Your task to perform on an android device: check out phone information Image 0: 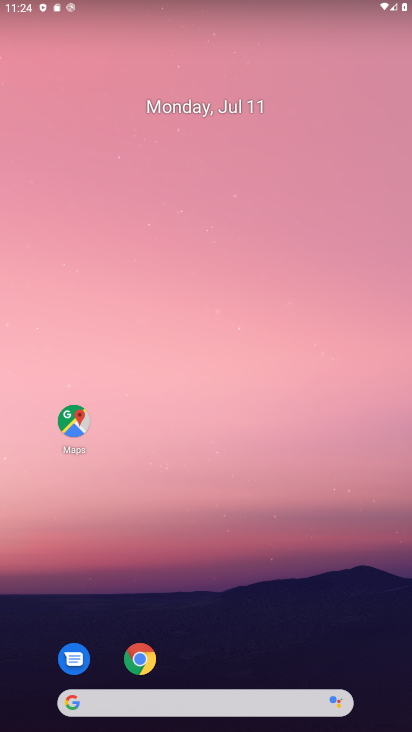
Step 0: drag from (205, 548) to (281, 190)
Your task to perform on an android device: check out phone information Image 1: 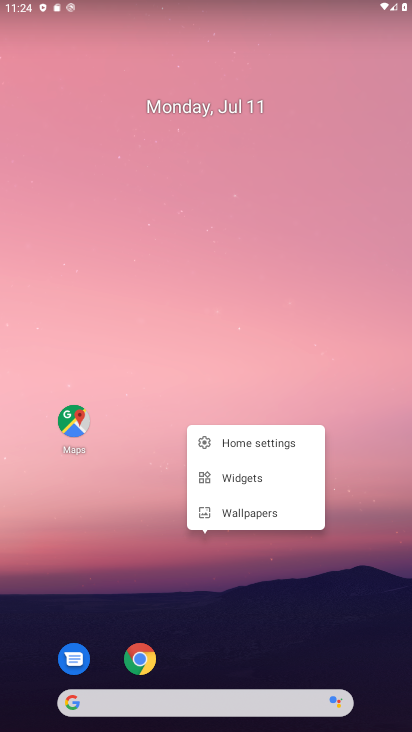
Step 1: drag from (195, 637) to (246, 85)
Your task to perform on an android device: check out phone information Image 2: 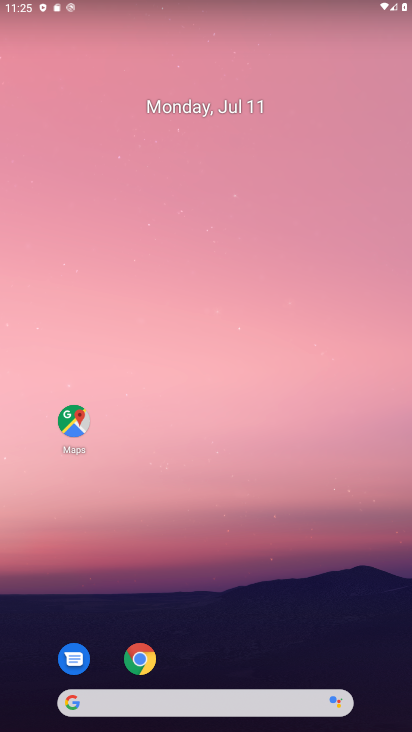
Step 2: drag from (194, 658) to (210, 33)
Your task to perform on an android device: check out phone information Image 3: 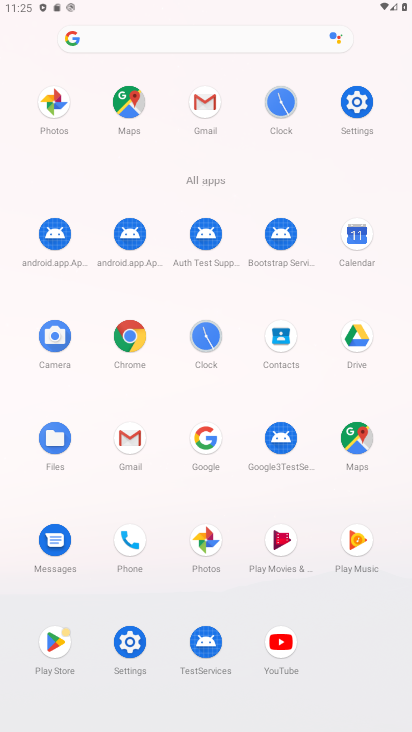
Step 3: click (128, 651)
Your task to perform on an android device: check out phone information Image 4: 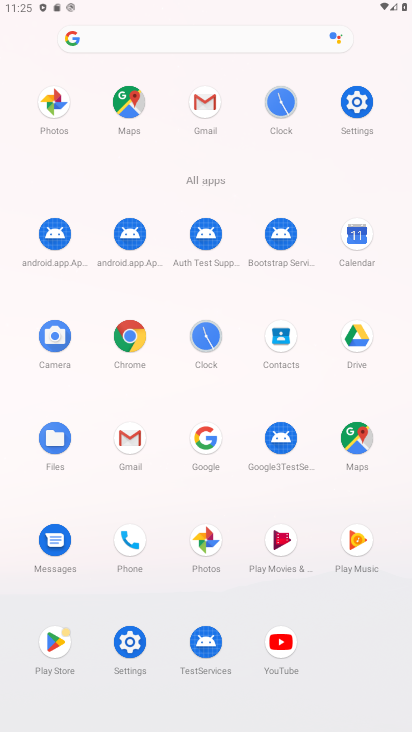
Step 4: click (130, 646)
Your task to perform on an android device: check out phone information Image 5: 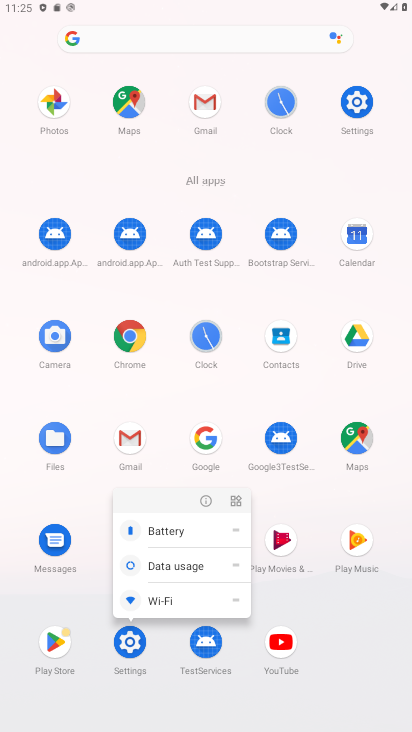
Step 5: click (203, 498)
Your task to perform on an android device: check out phone information Image 6: 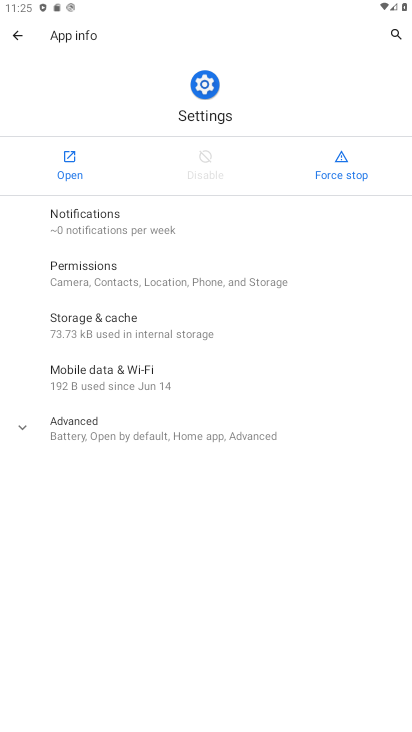
Step 6: click (74, 172)
Your task to perform on an android device: check out phone information Image 7: 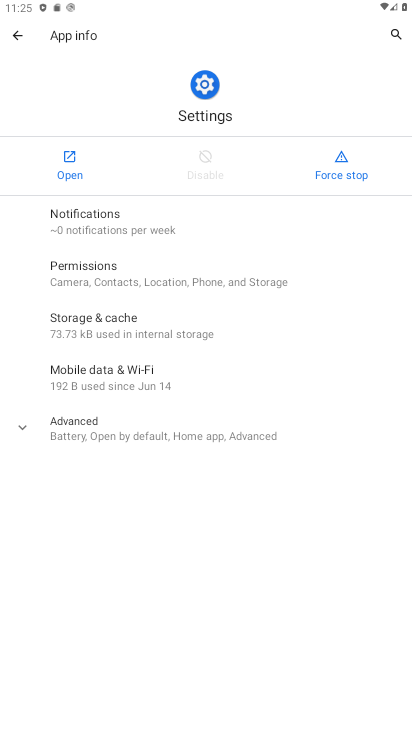
Step 7: click (74, 172)
Your task to perform on an android device: check out phone information Image 8: 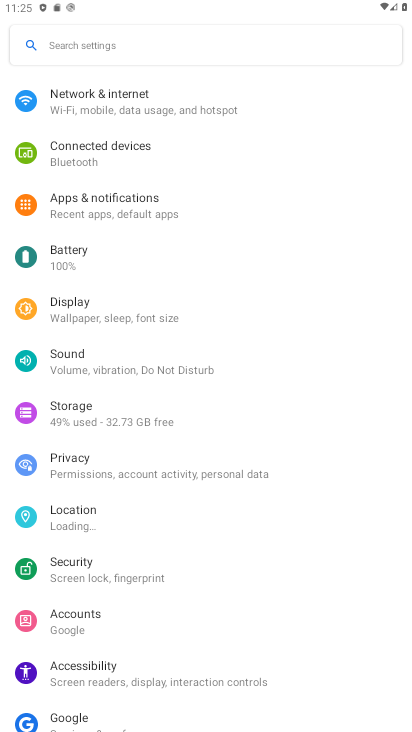
Step 8: drag from (205, 603) to (268, 9)
Your task to perform on an android device: check out phone information Image 9: 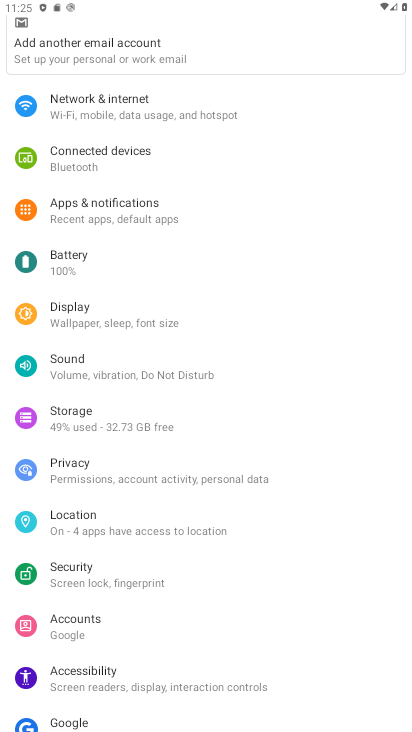
Step 9: drag from (153, 557) to (263, 61)
Your task to perform on an android device: check out phone information Image 10: 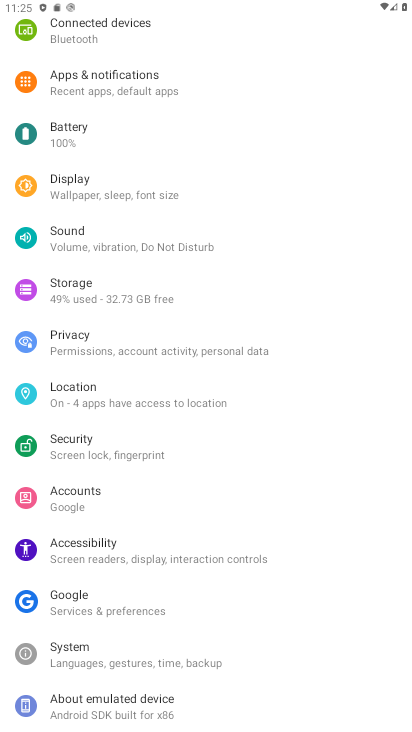
Step 10: click (111, 699)
Your task to perform on an android device: check out phone information Image 11: 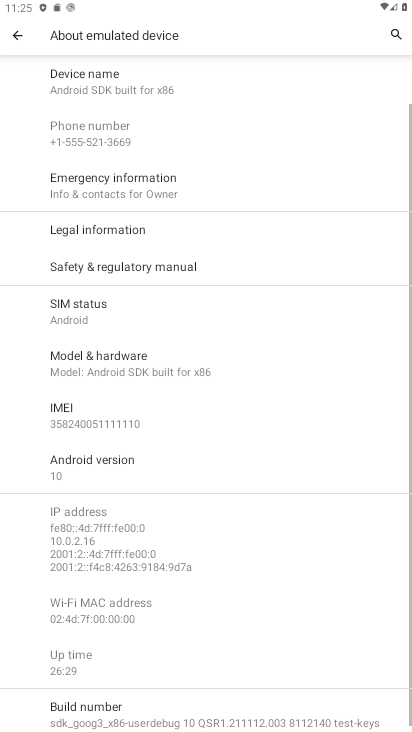
Step 11: drag from (129, 665) to (204, 108)
Your task to perform on an android device: check out phone information Image 12: 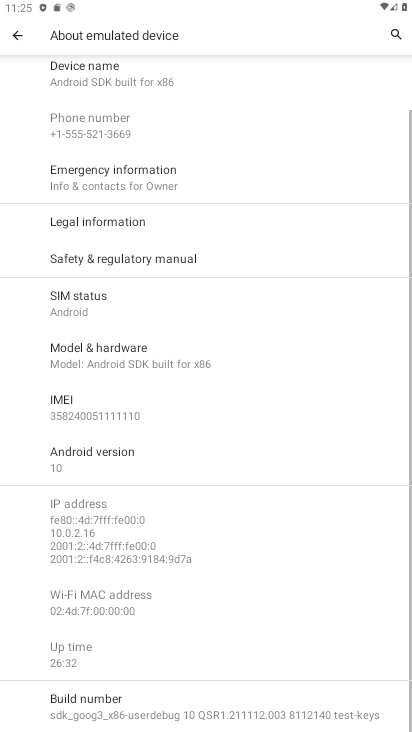
Step 12: click (99, 461)
Your task to perform on an android device: check out phone information Image 13: 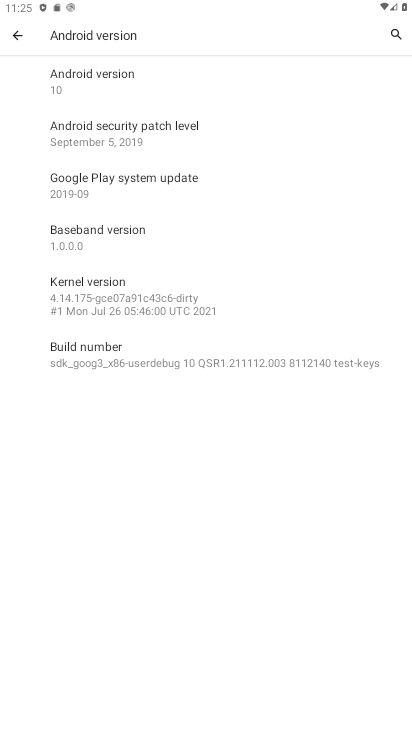
Step 13: click (113, 78)
Your task to perform on an android device: check out phone information Image 14: 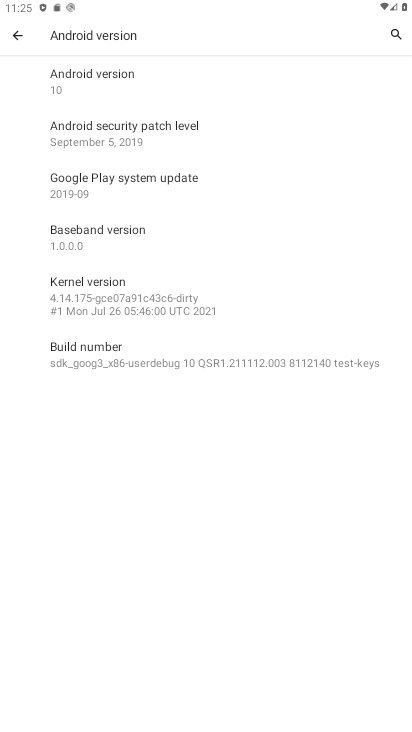
Step 14: task complete